Your task to perform on an android device: change the clock display to show seconds Image 0: 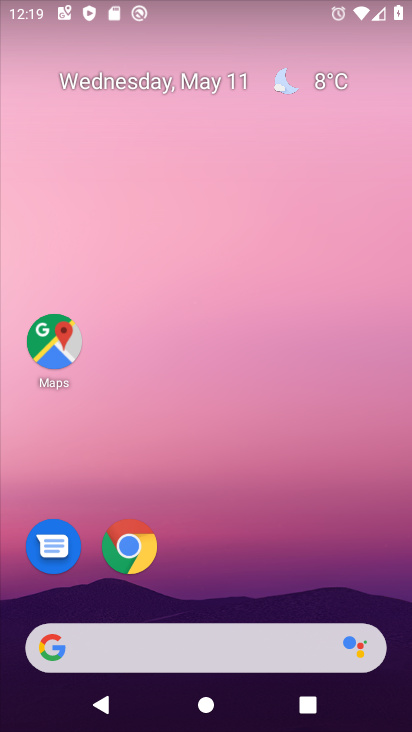
Step 0: drag from (191, 625) to (347, 88)
Your task to perform on an android device: change the clock display to show seconds Image 1: 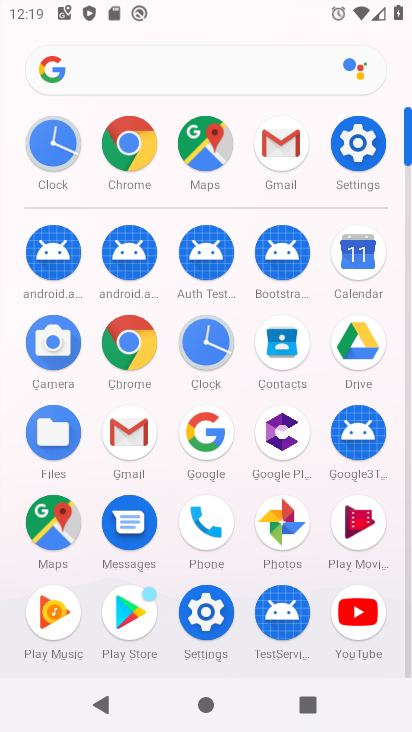
Step 1: click (61, 150)
Your task to perform on an android device: change the clock display to show seconds Image 2: 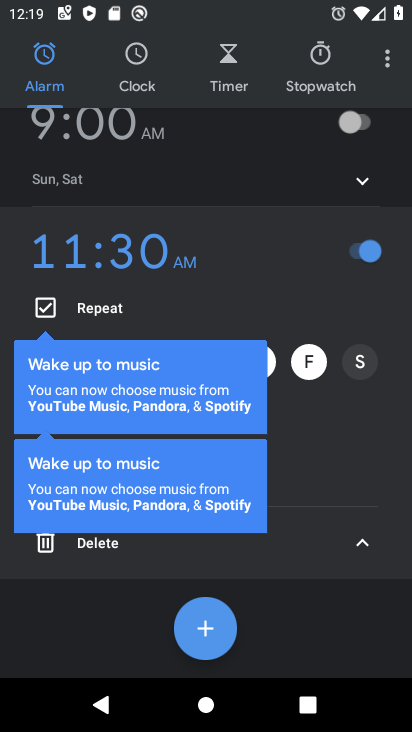
Step 2: click (389, 66)
Your task to perform on an android device: change the clock display to show seconds Image 3: 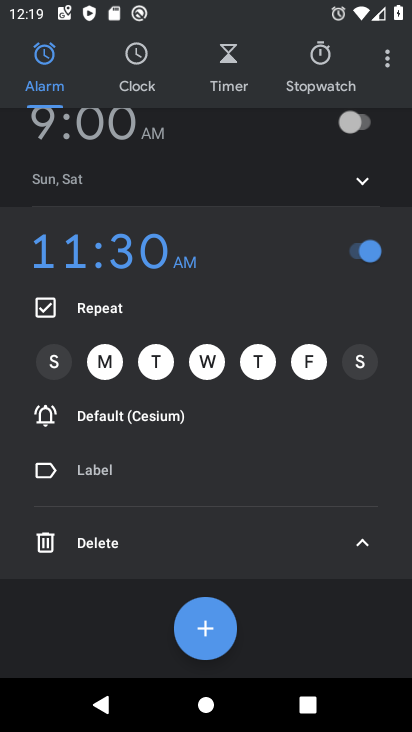
Step 3: click (383, 70)
Your task to perform on an android device: change the clock display to show seconds Image 4: 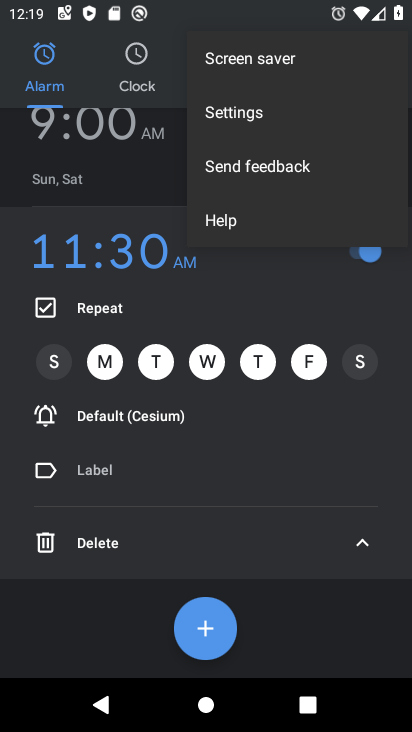
Step 4: click (260, 114)
Your task to perform on an android device: change the clock display to show seconds Image 5: 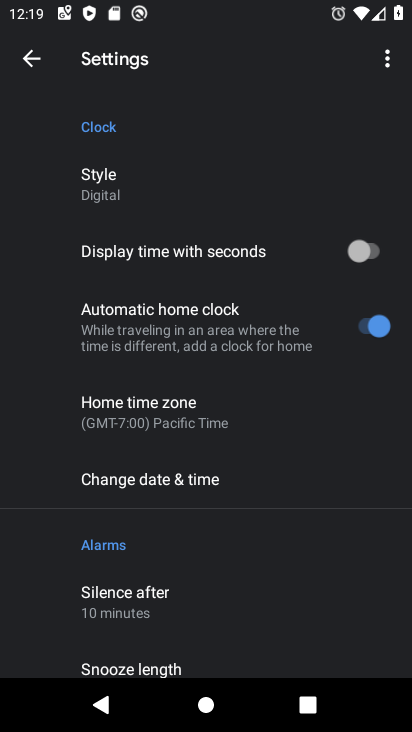
Step 5: click (369, 249)
Your task to perform on an android device: change the clock display to show seconds Image 6: 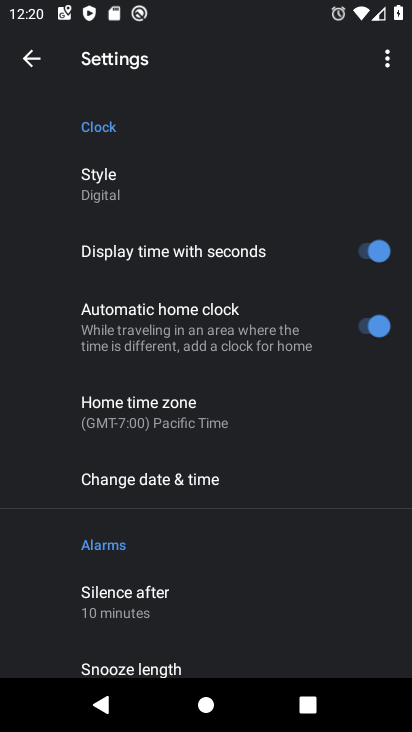
Step 6: task complete